Your task to perform on an android device: Go to settings Image 0: 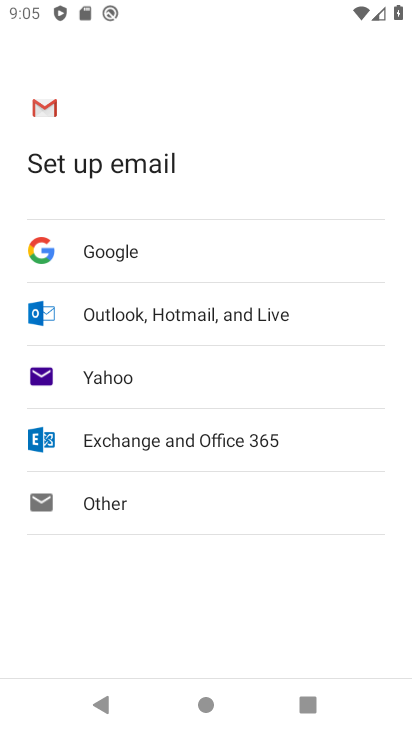
Step 0: task impossible